Your task to perform on an android device: What's on my calendar tomorrow? Image 0: 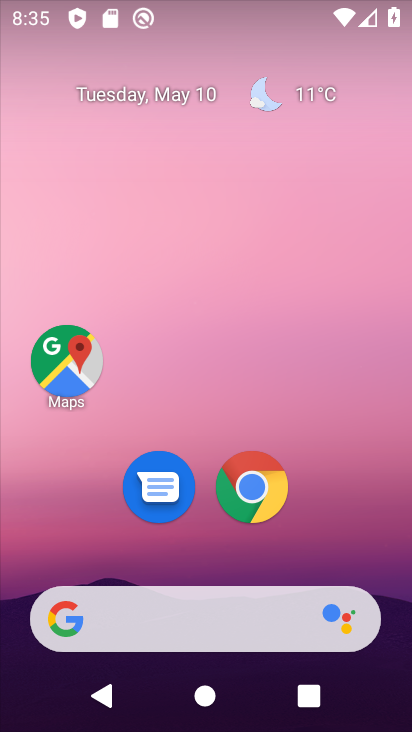
Step 0: drag from (79, 591) to (212, 163)
Your task to perform on an android device: What's on my calendar tomorrow? Image 1: 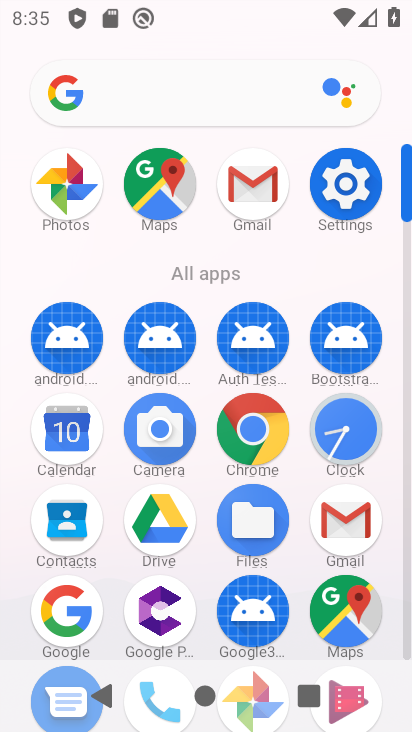
Step 1: click (88, 442)
Your task to perform on an android device: What's on my calendar tomorrow? Image 2: 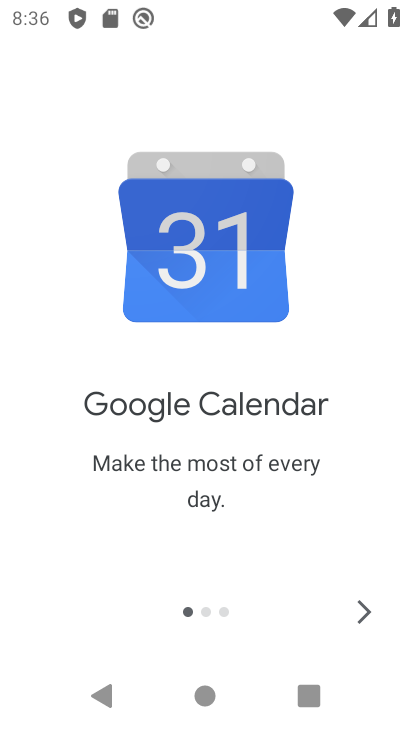
Step 2: click (364, 612)
Your task to perform on an android device: What's on my calendar tomorrow? Image 3: 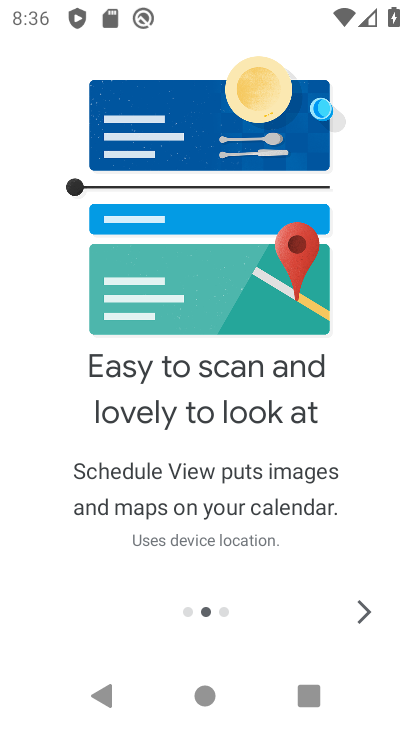
Step 3: click (363, 610)
Your task to perform on an android device: What's on my calendar tomorrow? Image 4: 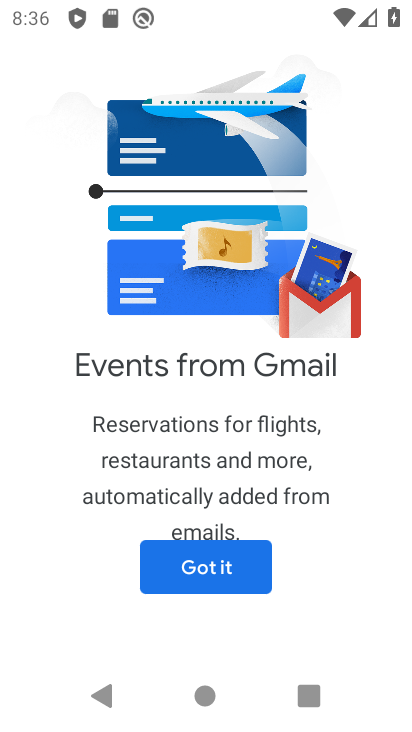
Step 4: click (220, 592)
Your task to perform on an android device: What's on my calendar tomorrow? Image 5: 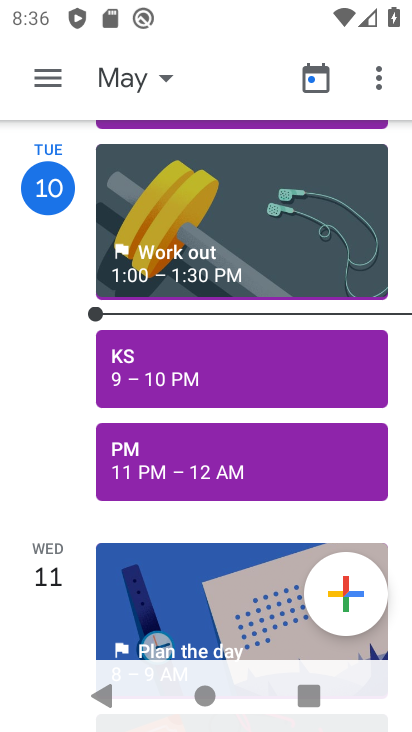
Step 5: task complete